Your task to perform on an android device: Go to location settings Image 0: 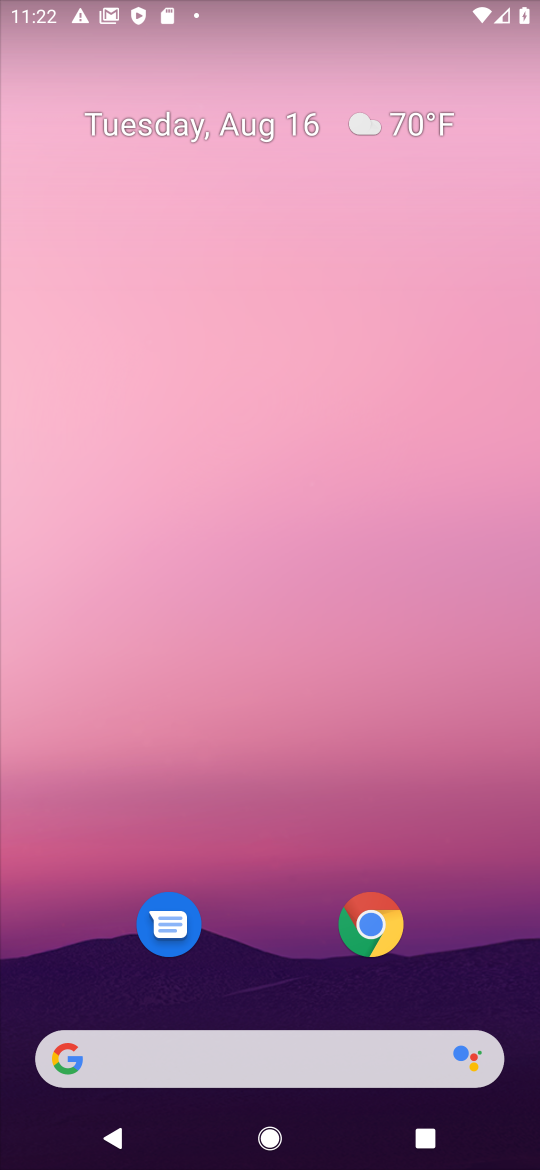
Step 0: drag from (269, 865) to (302, 111)
Your task to perform on an android device: Go to location settings Image 1: 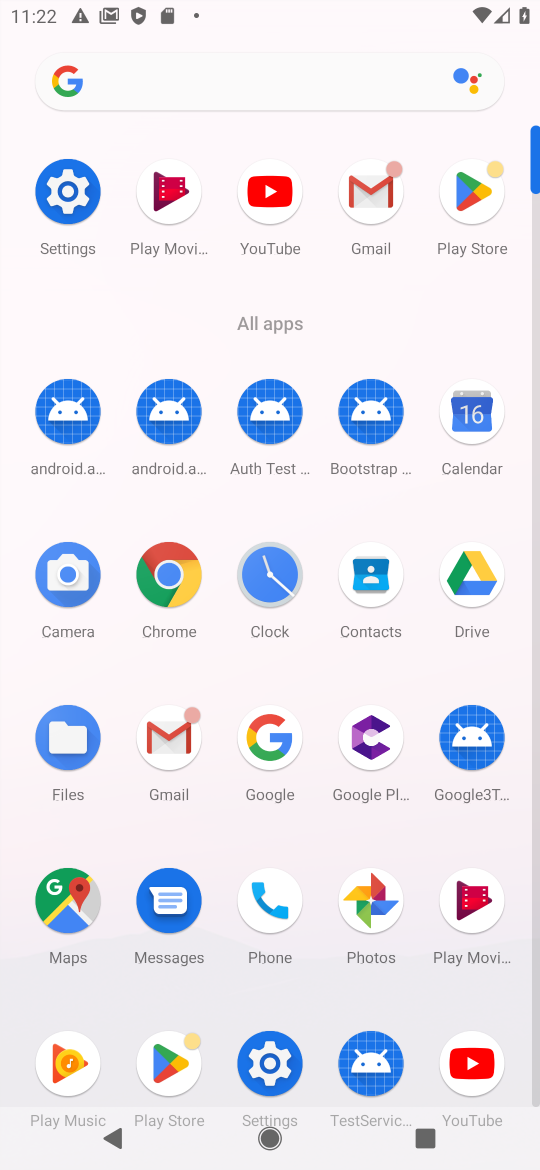
Step 1: click (66, 205)
Your task to perform on an android device: Go to location settings Image 2: 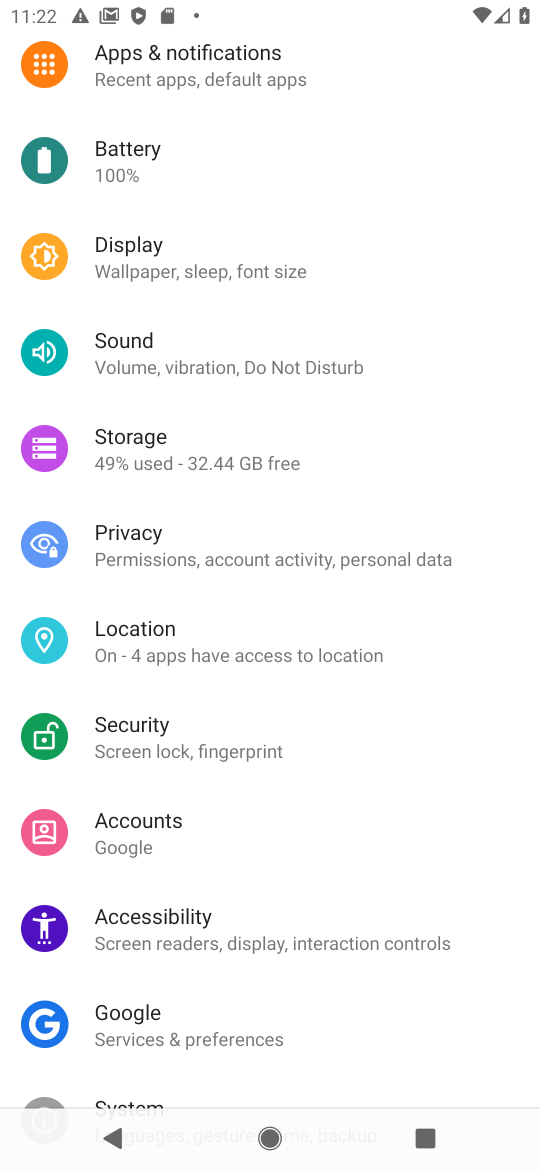
Step 2: click (163, 656)
Your task to perform on an android device: Go to location settings Image 3: 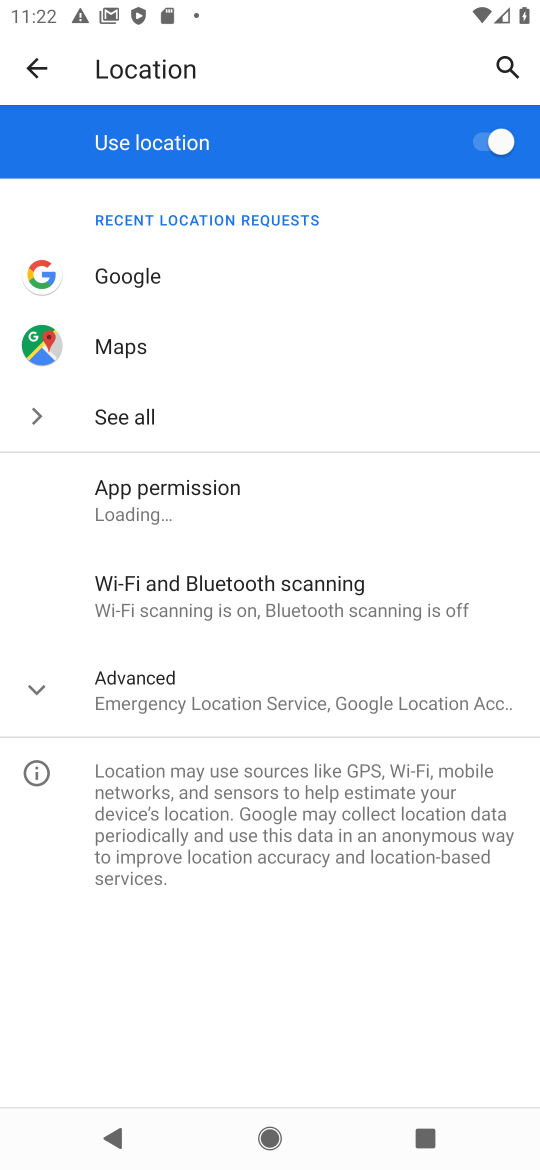
Step 3: task complete